Your task to perform on an android device: Open ESPN.com Image 0: 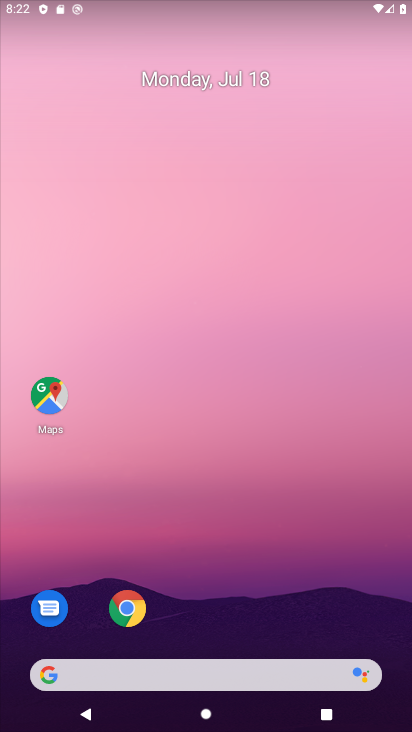
Step 0: click (117, 607)
Your task to perform on an android device: Open ESPN.com Image 1: 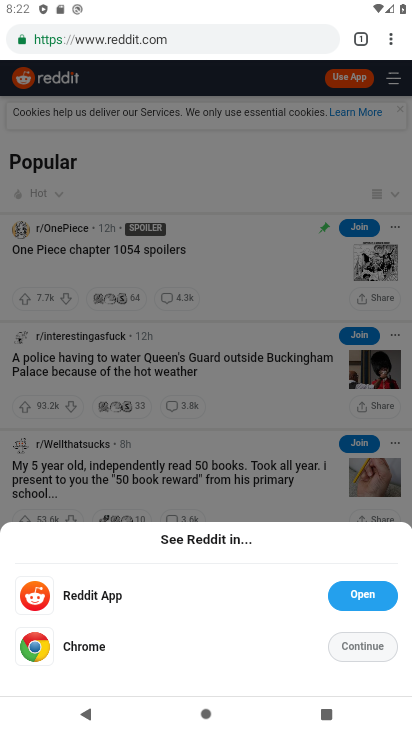
Step 1: click (163, 43)
Your task to perform on an android device: Open ESPN.com Image 2: 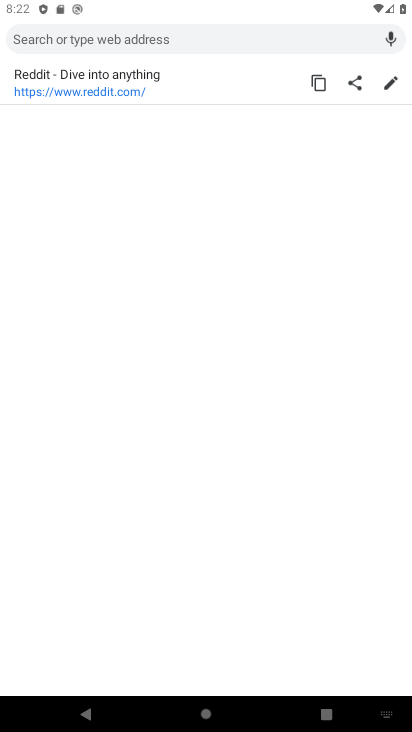
Step 2: type "ESPN.com"
Your task to perform on an android device: Open ESPN.com Image 3: 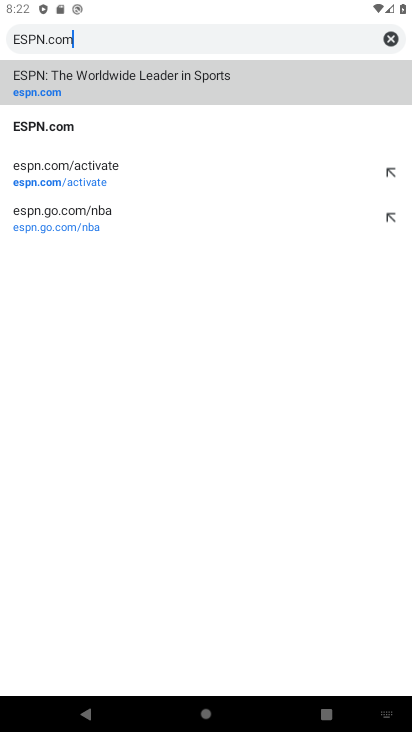
Step 3: click (107, 82)
Your task to perform on an android device: Open ESPN.com Image 4: 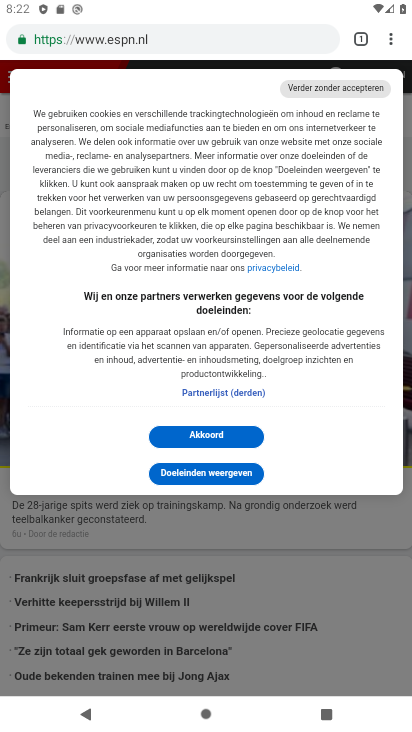
Step 4: task complete